Your task to perform on an android device: change your default location settings in chrome Image 0: 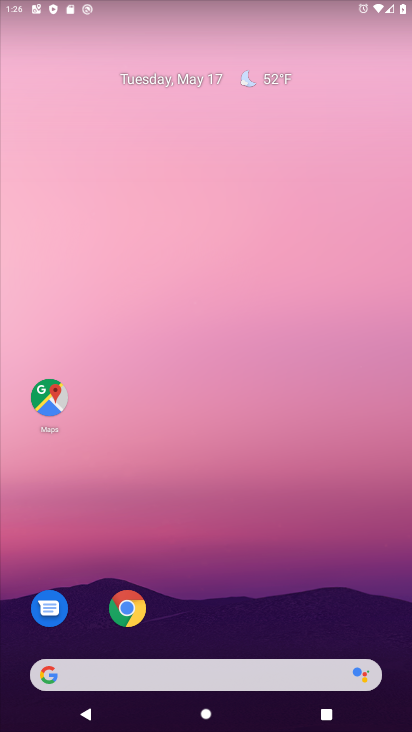
Step 0: click (129, 616)
Your task to perform on an android device: change your default location settings in chrome Image 1: 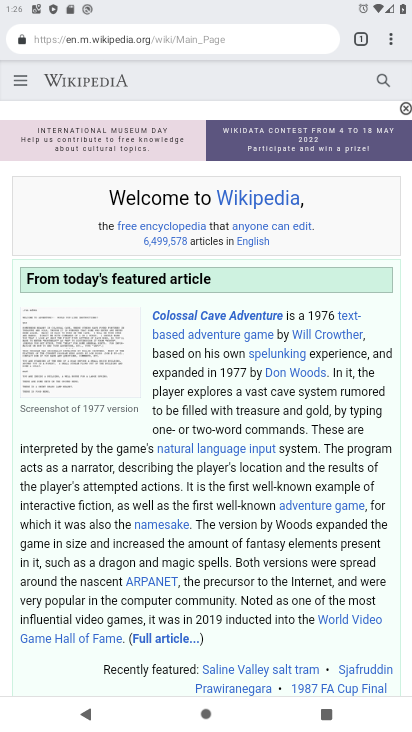
Step 1: click (395, 41)
Your task to perform on an android device: change your default location settings in chrome Image 2: 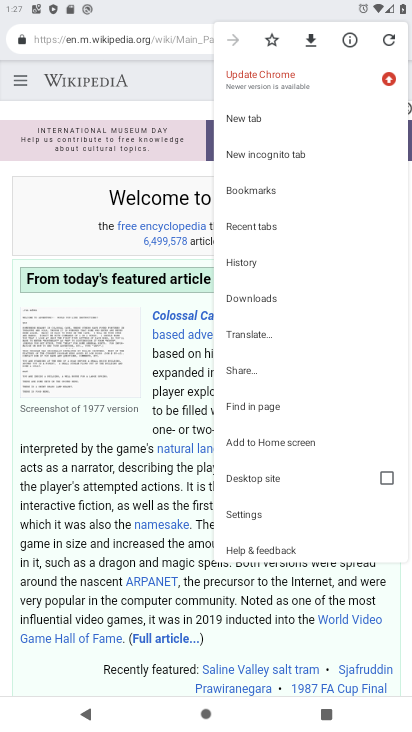
Step 2: click (284, 537)
Your task to perform on an android device: change your default location settings in chrome Image 3: 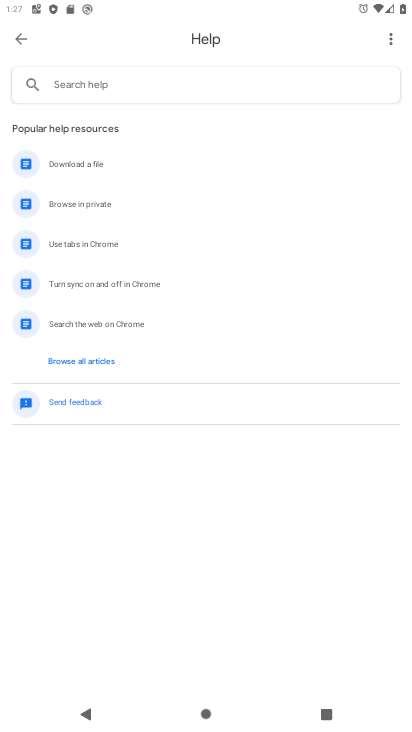
Step 3: click (23, 36)
Your task to perform on an android device: change your default location settings in chrome Image 4: 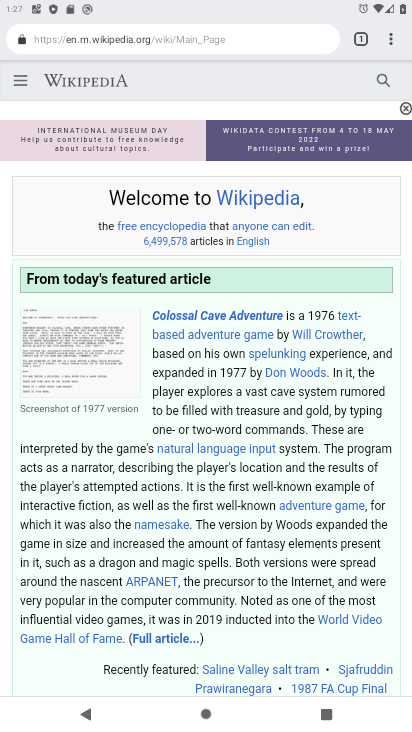
Step 4: click (383, 42)
Your task to perform on an android device: change your default location settings in chrome Image 5: 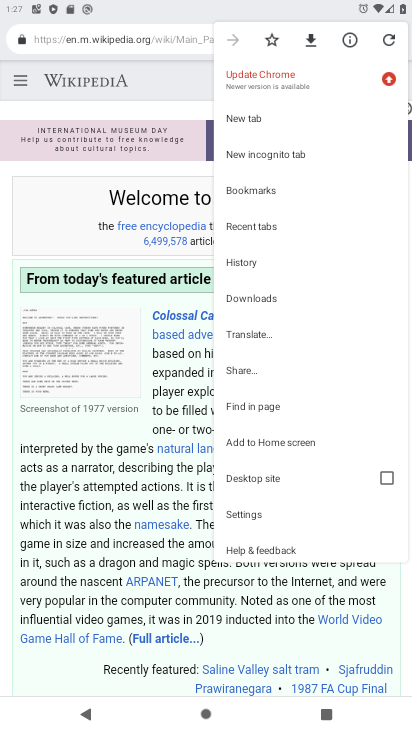
Step 5: click (263, 524)
Your task to perform on an android device: change your default location settings in chrome Image 6: 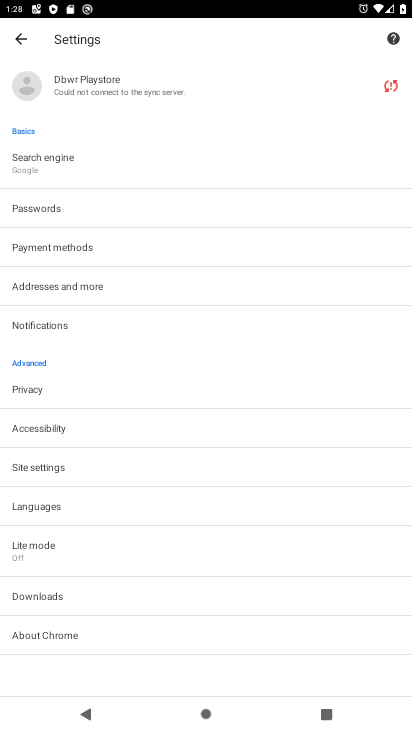
Step 6: click (28, 50)
Your task to perform on an android device: change your default location settings in chrome Image 7: 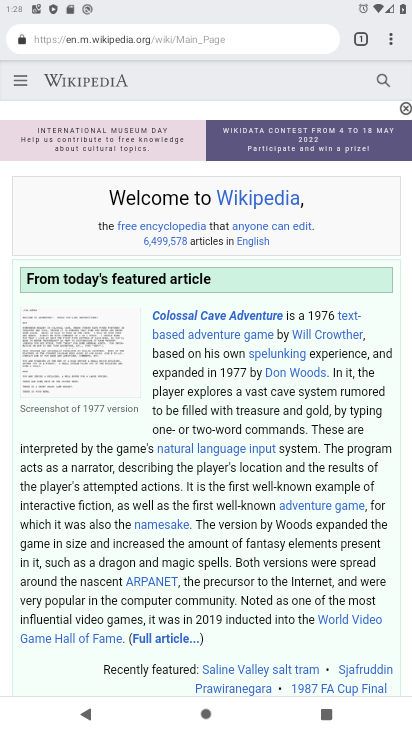
Step 7: click (385, 39)
Your task to perform on an android device: change your default location settings in chrome Image 8: 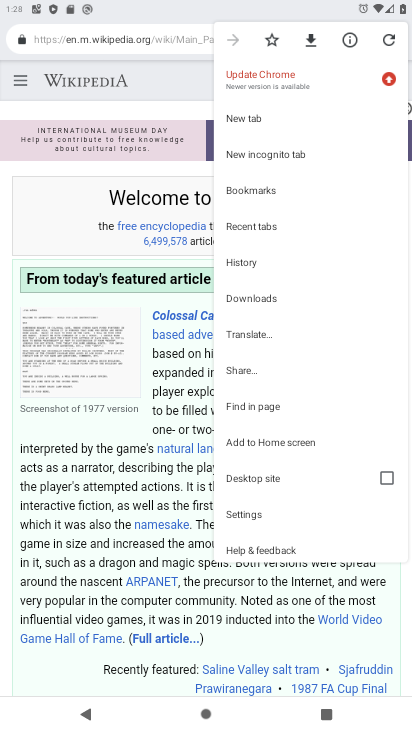
Step 8: click (262, 514)
Your task to perform on an android device: change your default location settings in chrome Image 9: 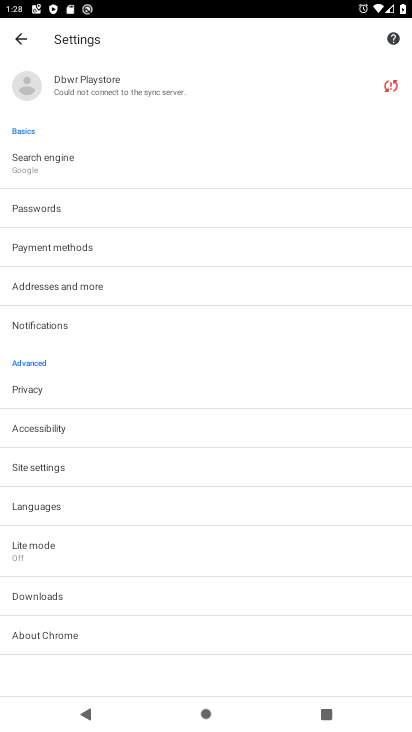
Step 9: click (70, 467)
Your task to perform on an android device: change your default location settings in chrome Image 10: 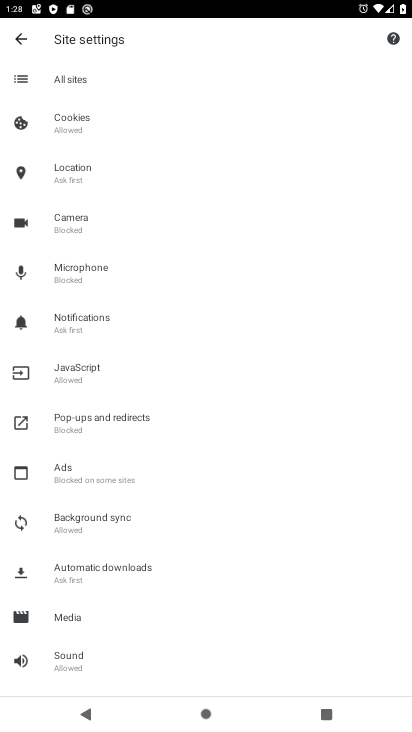
Step 10: click (96, 177)
Your task to perform on an android device: change your default location settings in chrome Image 11: 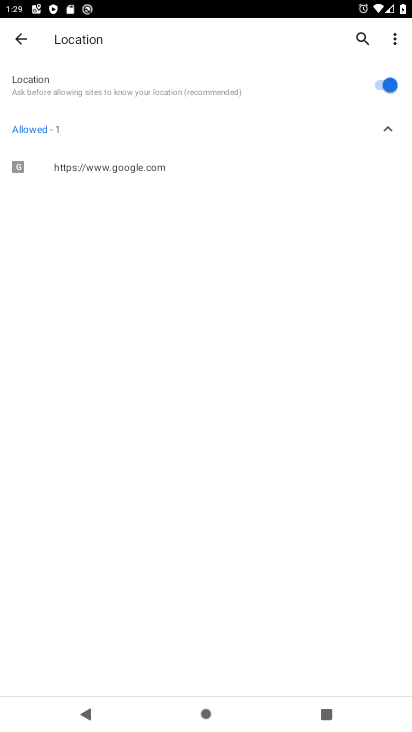
Step 11: click (383, 97)
Your task to perform on an android device: change your default location settings in chrome Image 12: 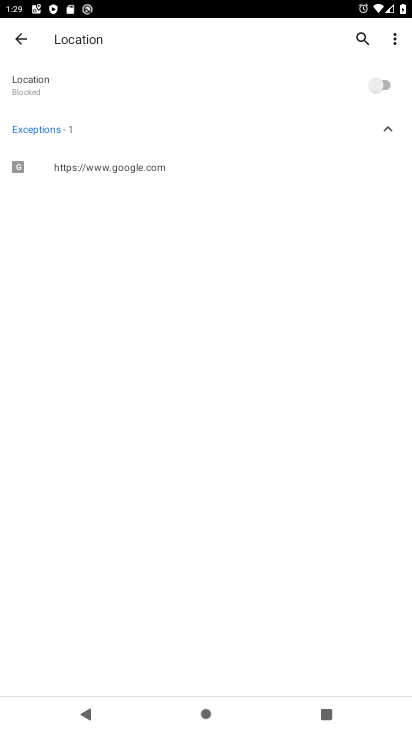
Step 12: task complete